Your task to perform on an android device: Is it going to rain tomorrow? Image 0: 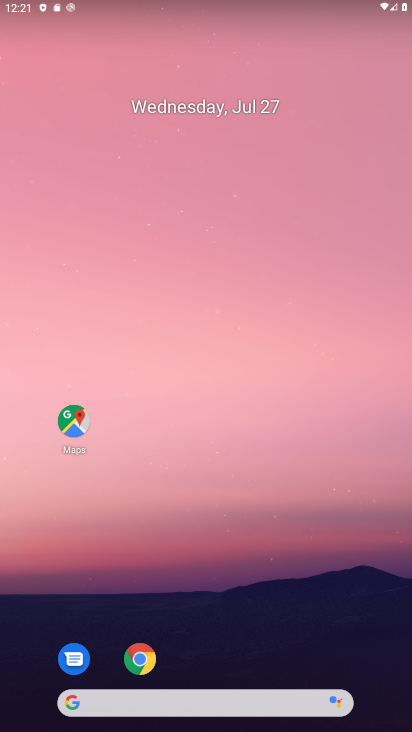
Step 0: drag from (215, 663) to (240, 200)
Your task to perform on an android device: Is it going to rain tomorrow? Image 1: 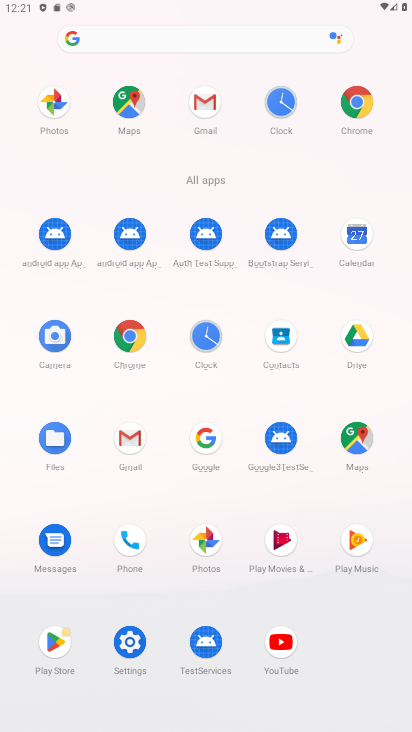
Step 1: click (211, 448)
Your task to perform on an android device: Is it going to rain tomorrow? Image 2: 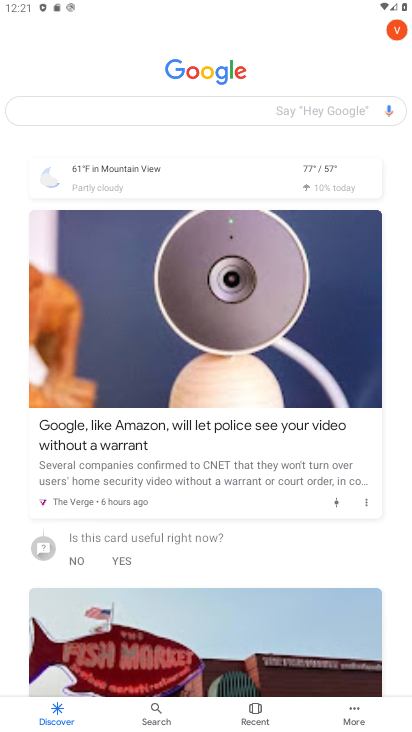
Step 2: click (122, 197)
Your task to perform on an android device: Is it going to rain tomorrow? Image 3: 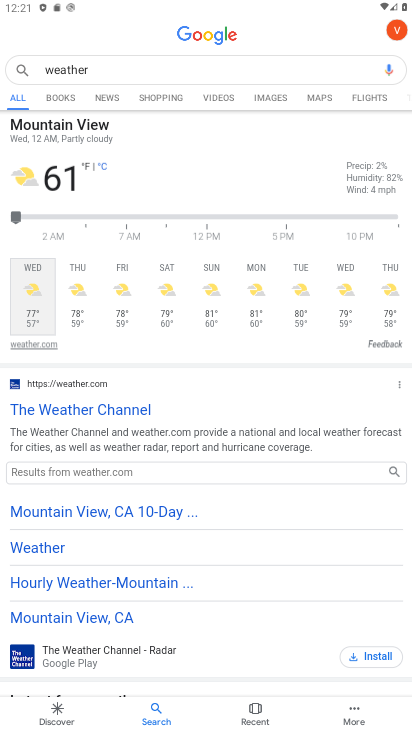
Step 3: task complete